Your task to perform on an android device: turn off translation in the chrome app Image 0: 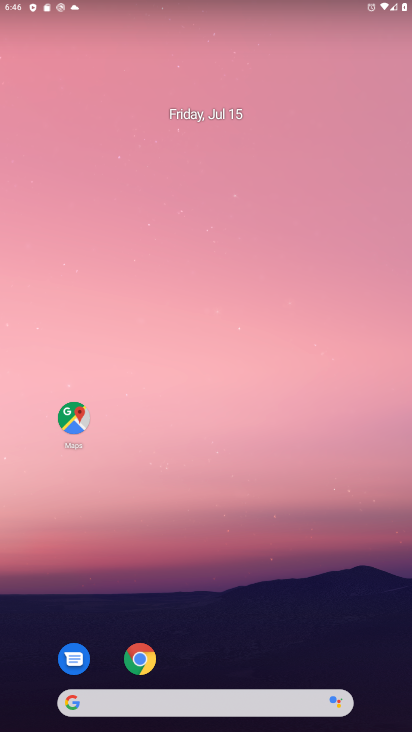
Step 0: click (143, 658)
Your task to perform on an android device: turn off translation in the chrome app Image 1: 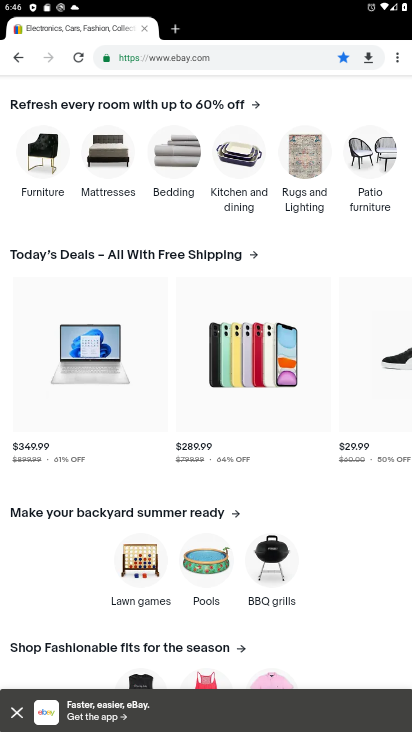
Step 1: click (398, 54)
Your task to perform on an android device: turn off translation in the chrome app Image 2: 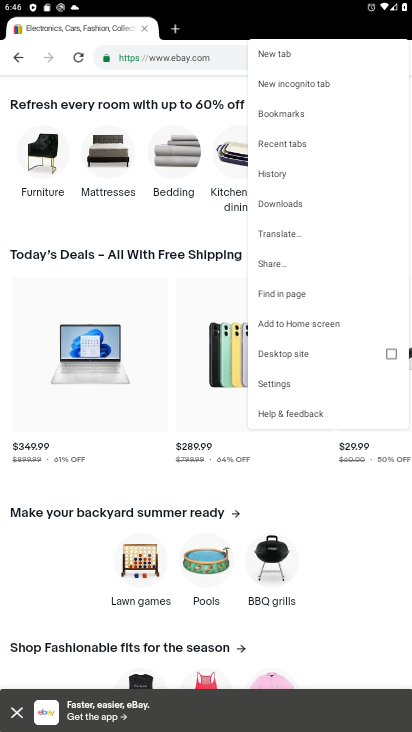
Step 2: click (277, 382)
Your task to perform on an android device: turn off translation in the chrome app Image 3: 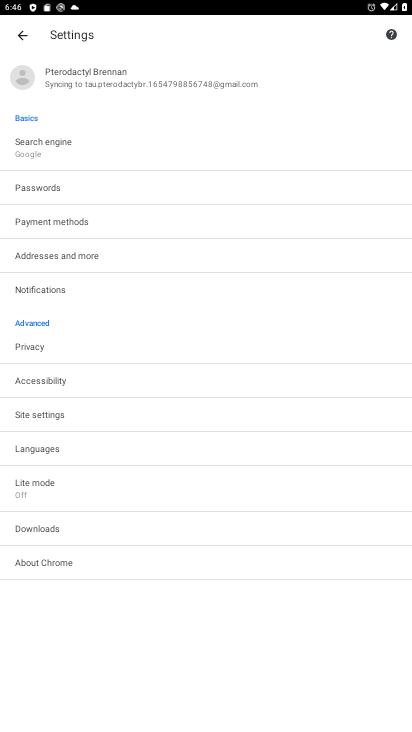
Step 3: click (32, 451)
Your task to perform on an android device: turn off translation in the chrome app Image 4: 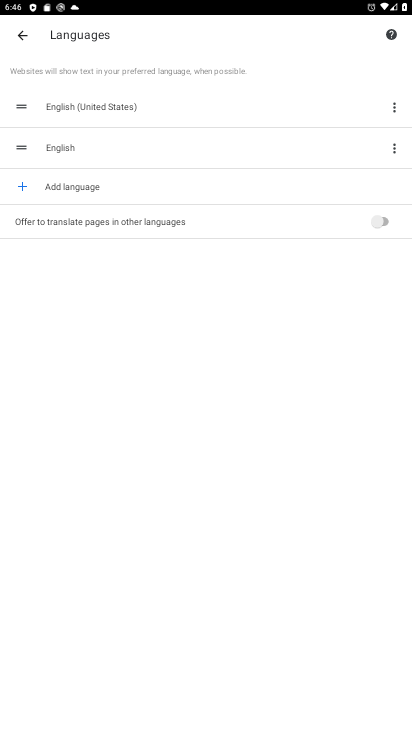
Step 4: task complete